Your task to perform on an android device: Open my contact list Image 0: 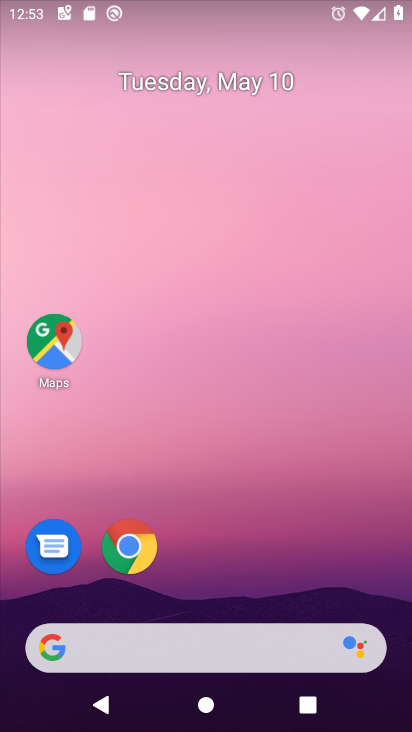
Step 0: drag from (299, 569) to (294, 122)
Your task to perform on an android device: Open my contact list Image 1: 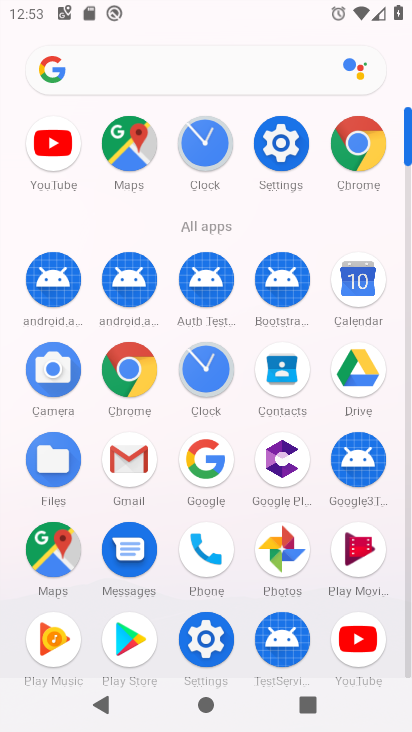
Step 1: click (270, 367)
Your task to perform on an android device: Open my contact list Image 2: 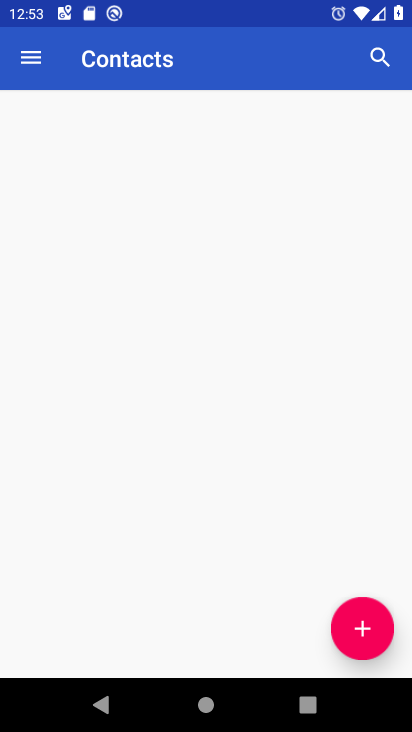
Step 2: drag from (198, 526) to (311, 211)
Your task to perform on an android device: Open my contact list Image 3: 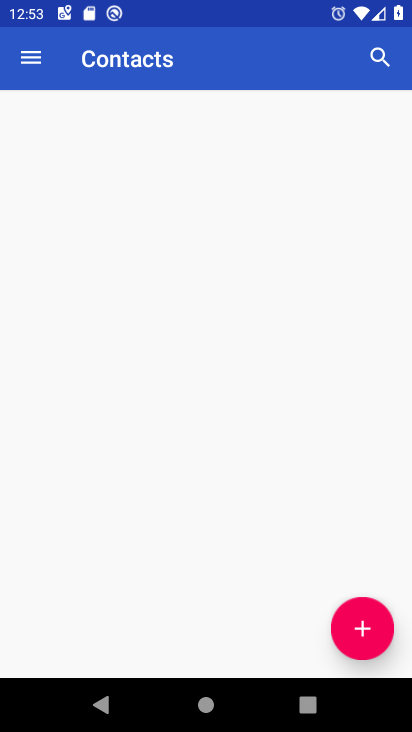
Step 3: drag from (144, 422) to (179, 381)
Your task to perform on an android device: Open my contact list Image 4: 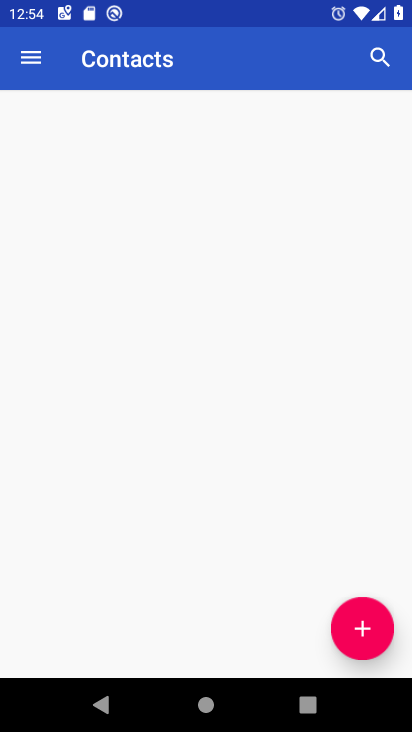
Step 4: drag from (179, 381) to (203, 684)
Your task to perform on an android device: Open my contact list Image 5: 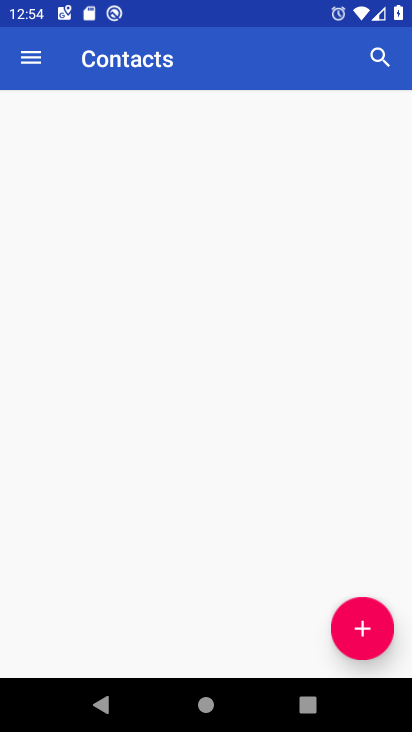
Step 5: drag from (318, 141) to (295, 700)
Your task to perform on an android device: Open my contact list Image 6: 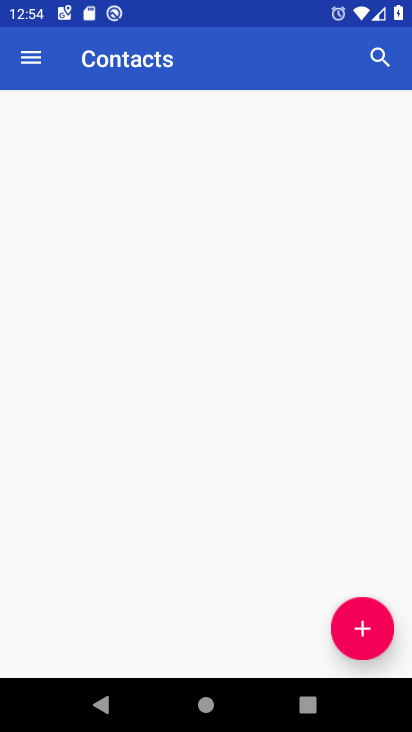
Step 6: press back button
Your task to perform on an android device: Open my contact list Image 7: 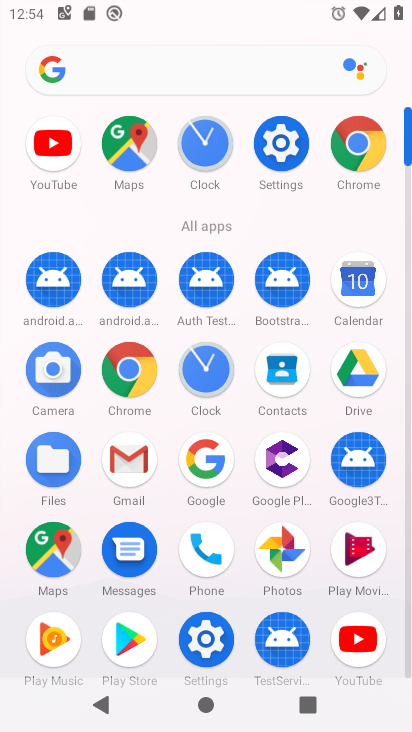
Step 7: click (295, 358)
Your task to perform on an android device: Open my contact list Image 8: 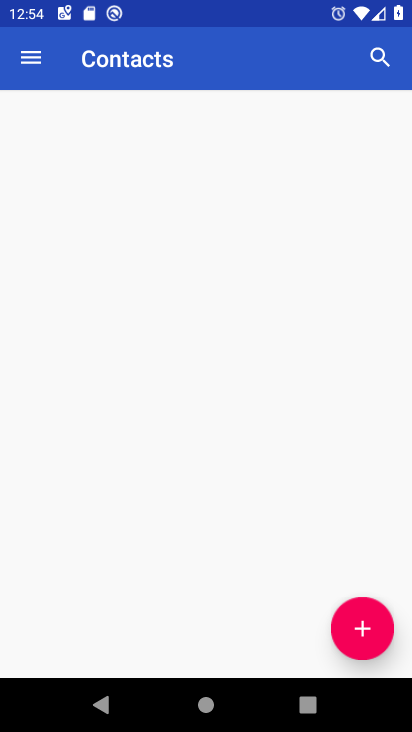
Step 8: task complete